Your task to perform on an android device: visit the assistant section in the google photos Image 0: 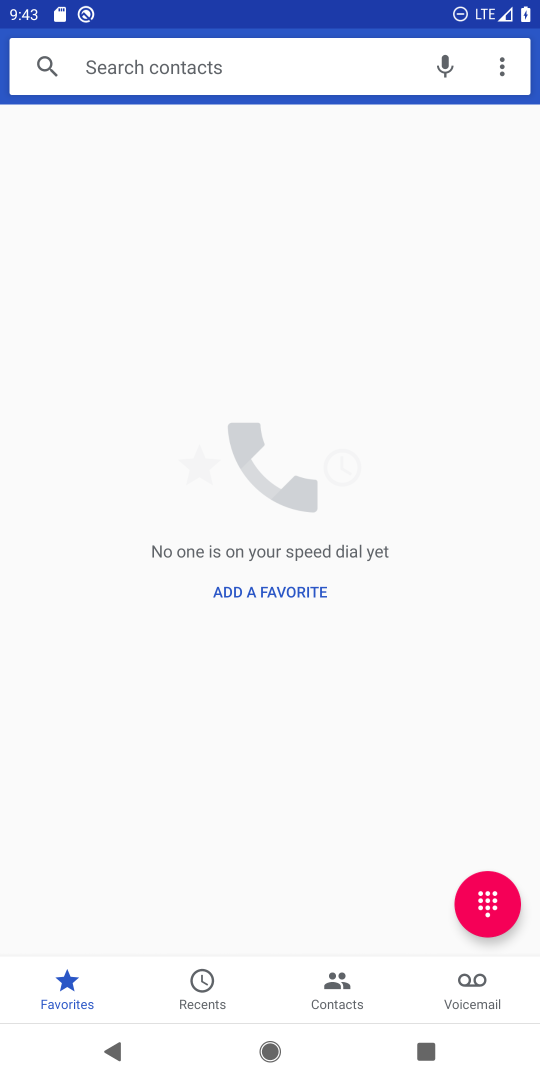
Step 0: press home button
Your task to perform on an android device: visit the assistant section in the google photos Image 1: 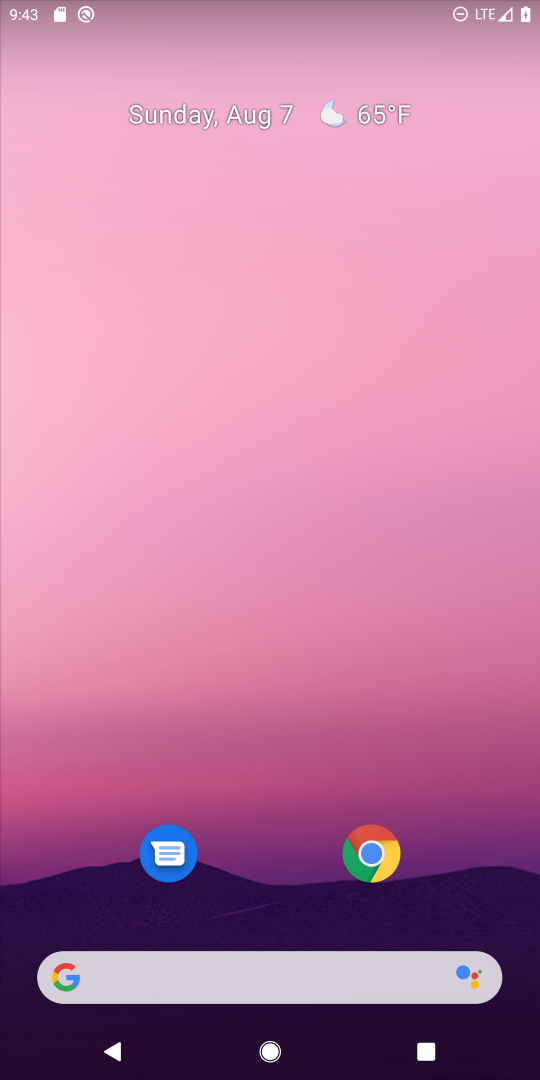
Step 1: drag from (254, 944) to (384, 178)
Your task to perform on an android device: visit the assistant section in the google photos Image 2: 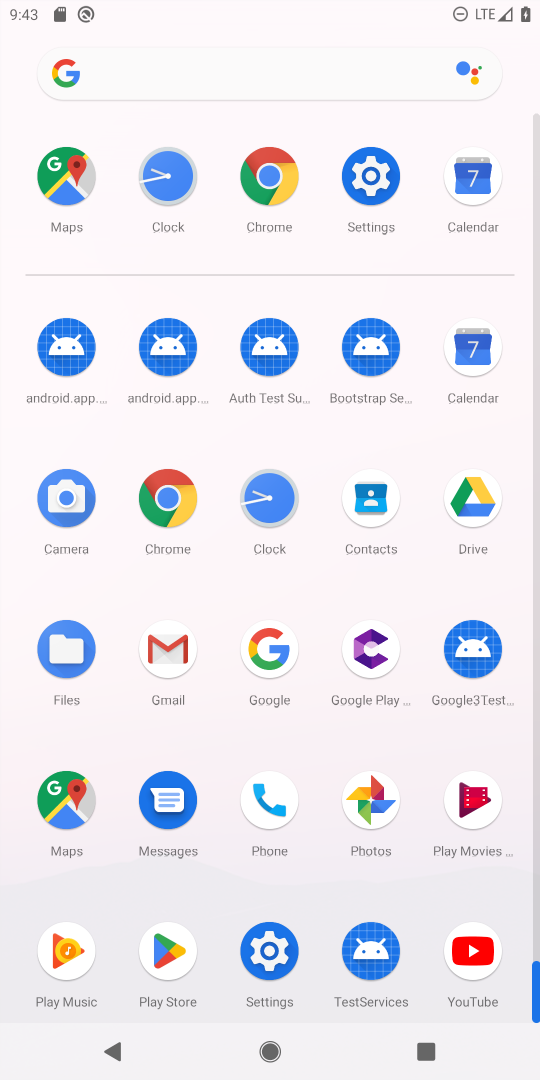
Step 2: click (364, 793)
Your task to perform on an android device: visit the assistant section in the google photos Image 3: 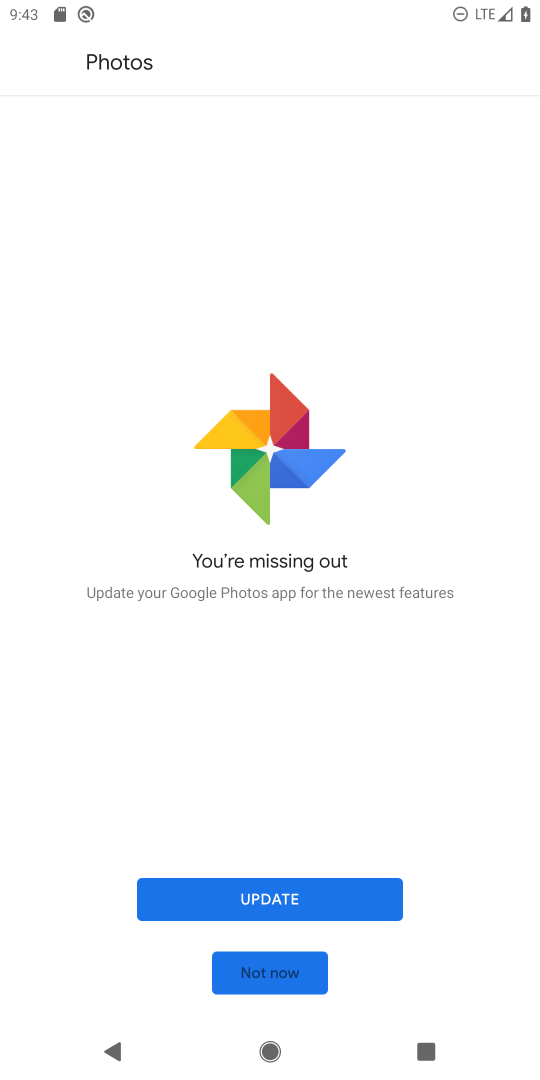
Step 3: click (303, 974)
Your task to perform on an android device: visit the assistant section in the google photos Image 4: 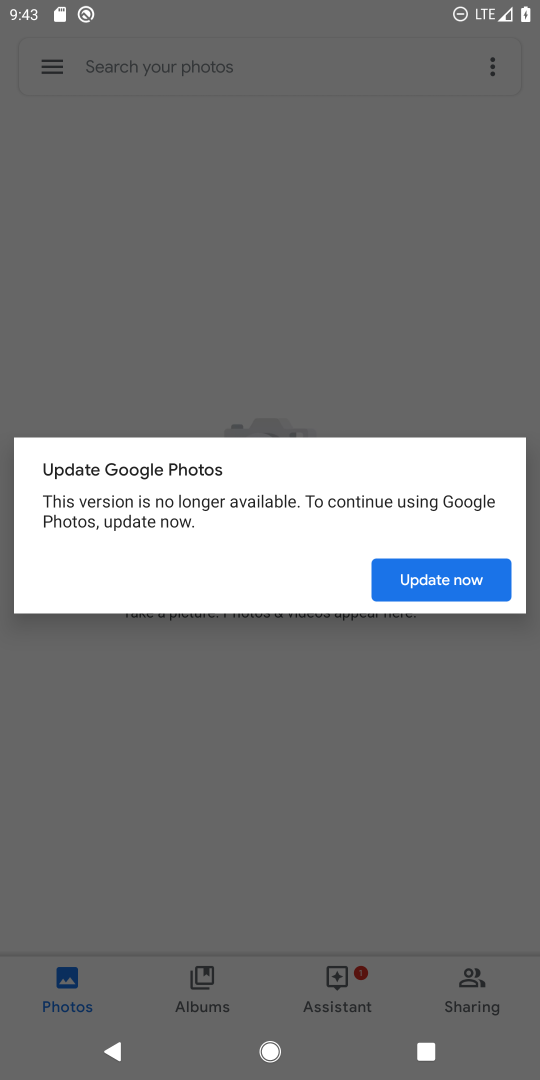
Step 4: click (415, 543)
Your task to perform on an android device: visit the assistant section in the google photos Image 5: 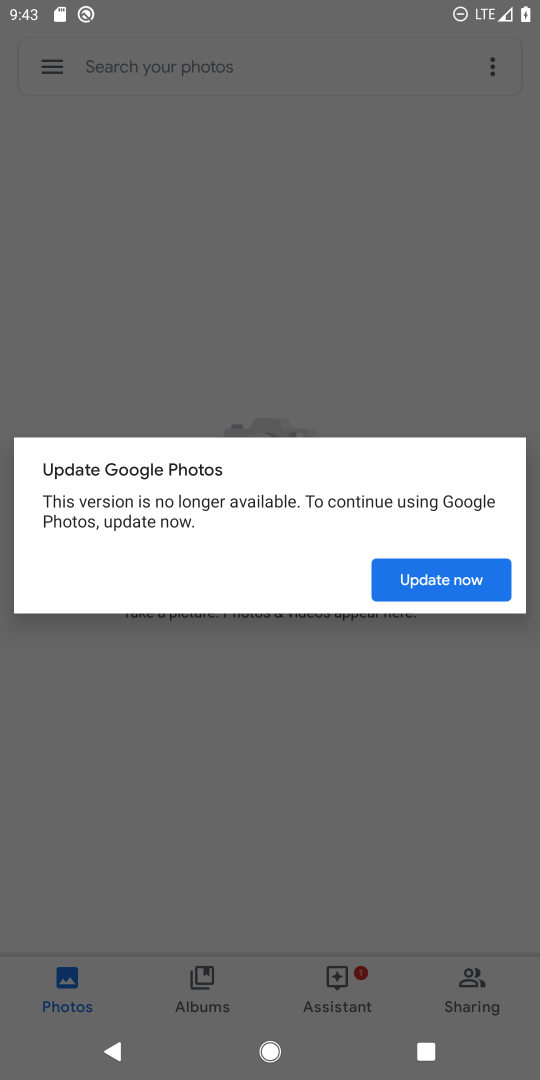
Step 5: click (406, 579)
Your task to perform on an android device: visit the assistant section in the google photos Image 6: 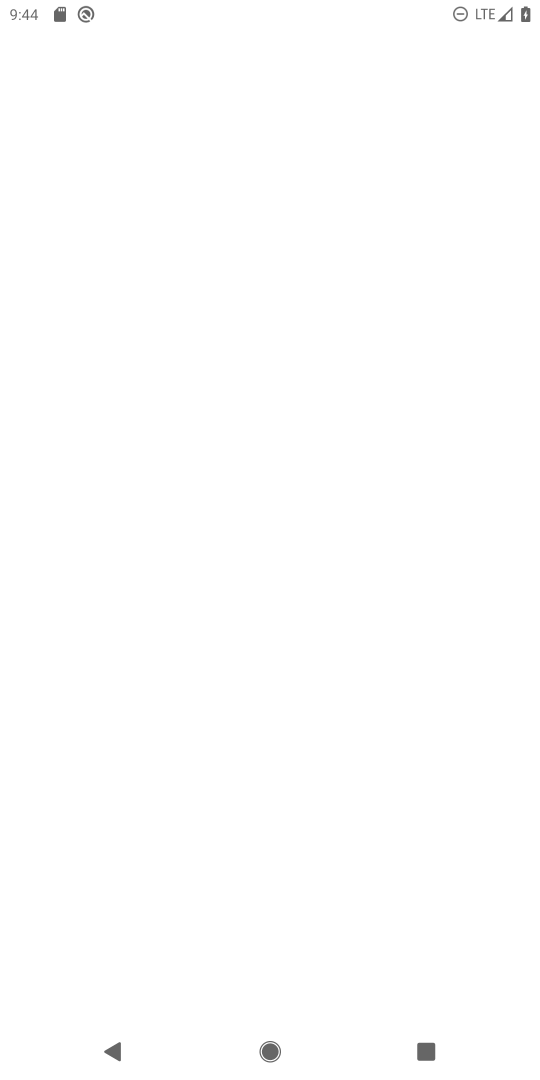
Step 6: press back button
Your task to perform on an android device: visit the assistant section in the google photos Image 7: 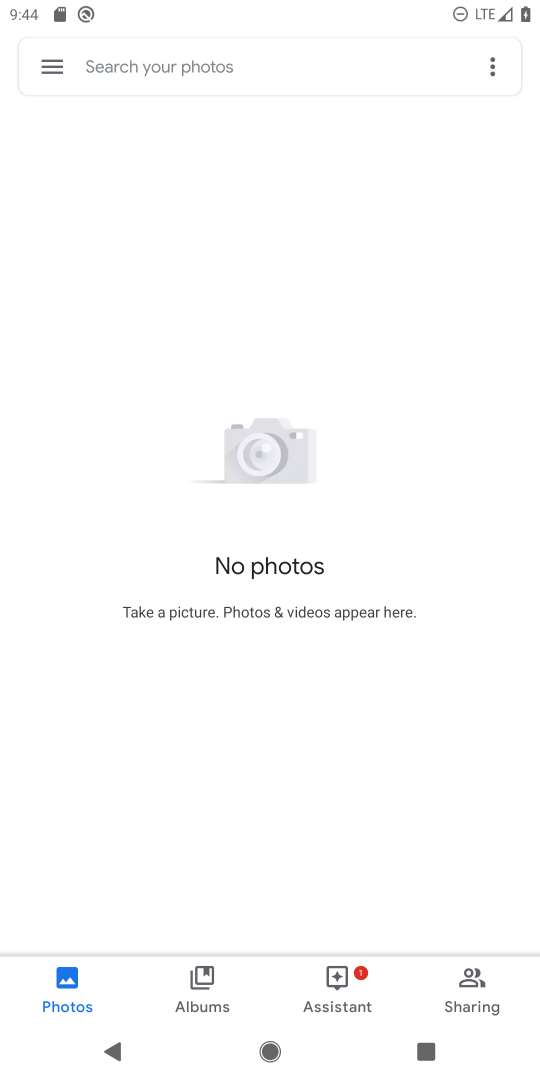
Step 7: click (335, 962)
Your task to perform on an android device: visit the assistant section in the google photos Image 8: 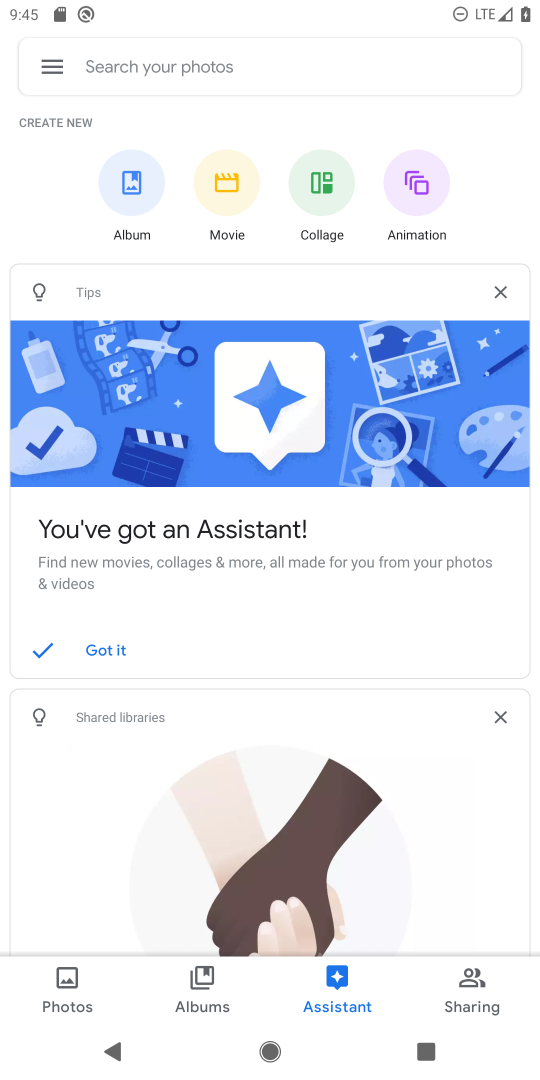
Step 8: task complete